Your task to perform on an android device: check out phone information Image 0: 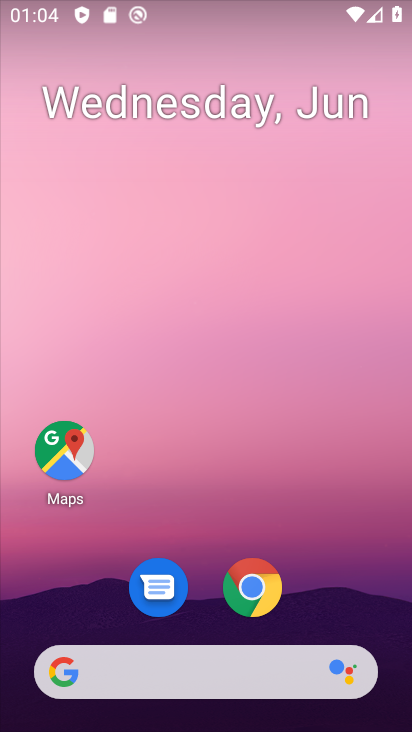
Step 0: drag from (345, 585) to (288, 127)
Your task to perform on an android device: check out phone information Image 1: 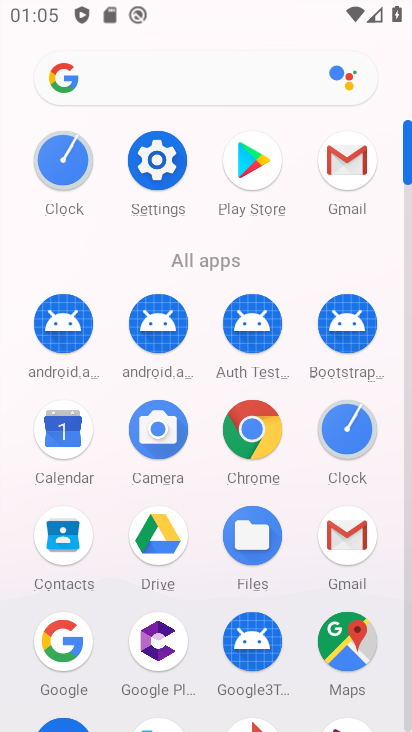
Step 1: drag from (209, 612) to (206, 288)
Your task to perform on an android device: check out phone information Image 2: 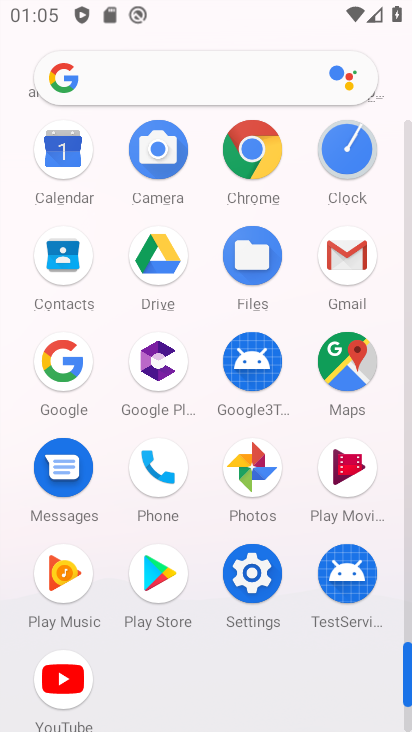
Step 2: click (155, 471)
Your task to perform on an android device: check out phone information Image 3: 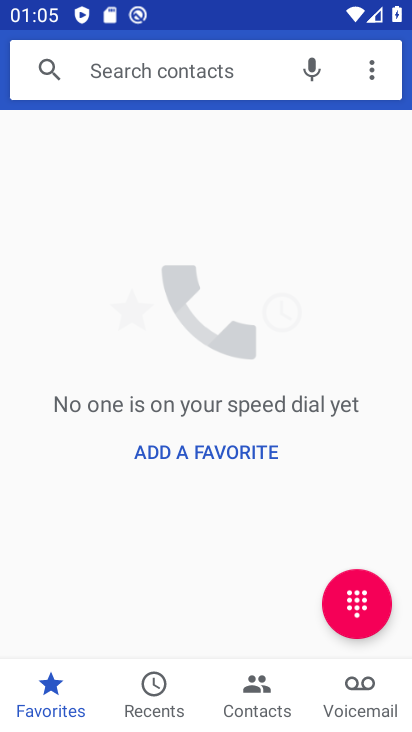
Step 3: press home button
Your task to perform on an android device: check out phone information Image 4: 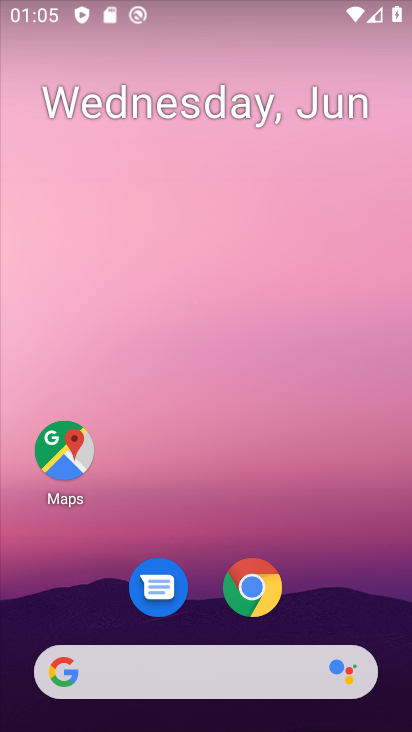
Step 4: drag from (231, 514) to (261, 106)
Your task to perform on an android device: check out phone information Image 5: 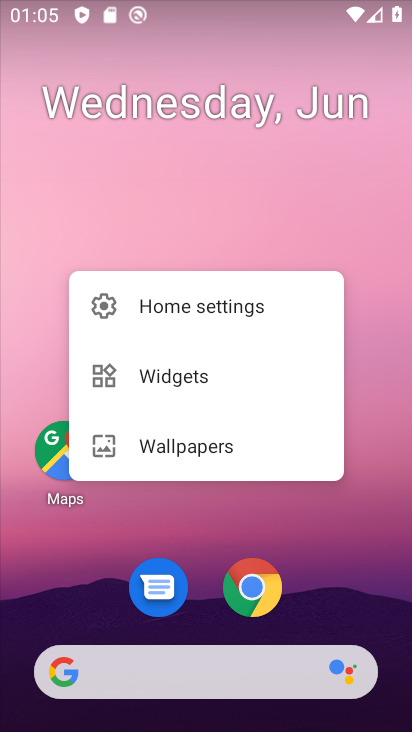
Step 5: click (371, 514)
Your task to perform on an android device: check out phone information Image 6: 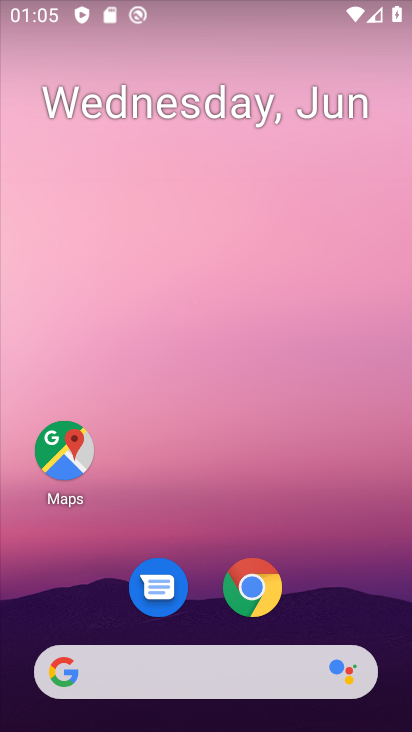
Step 6: drag from (344, 513) to (329, 87)
Your task to perform on an android device: check out phone information Image 7: 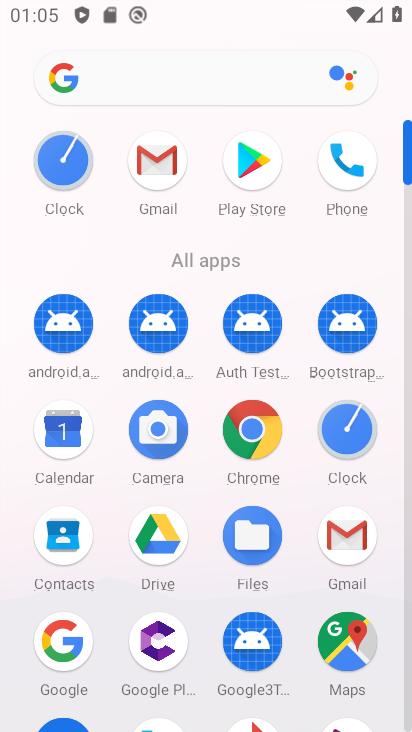
Step 7: drag from (198, 528) to (212, 200)
Your task to perform on an android device: check out phone information Image 8: 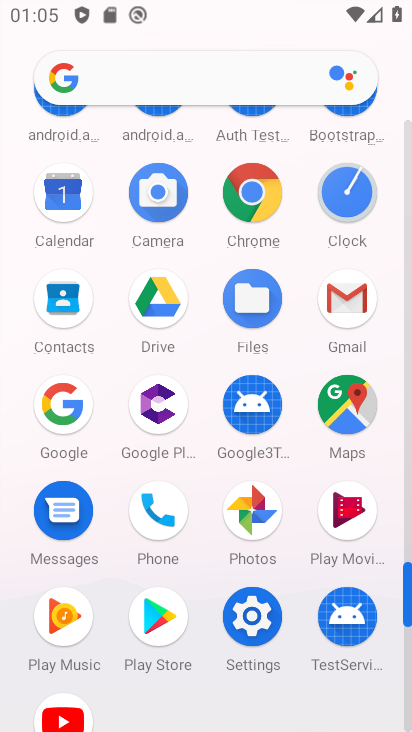
Step 8: click (164, 527)
Your task to perform on an android device: check out phone information Image 9: 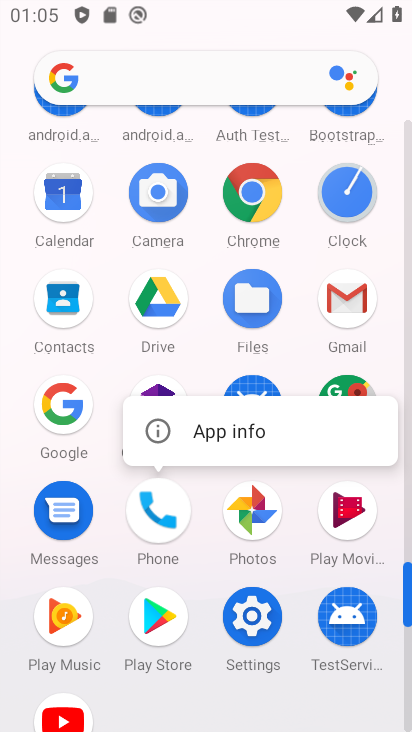
Step 9: click (226, 429)
Your task to perform on an android device: check out phone information Image 10: 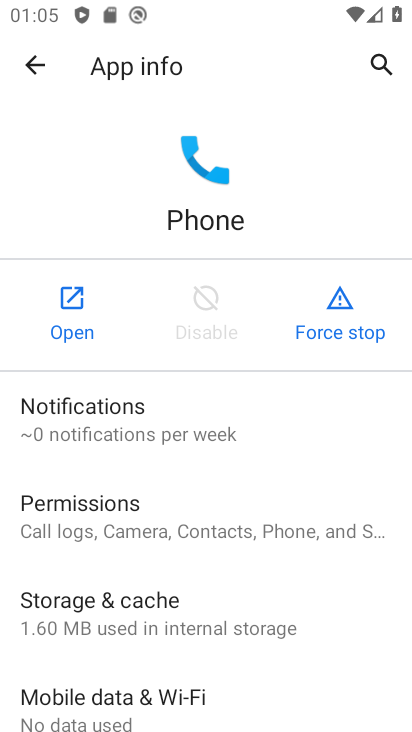
Step 10: task complete